Your task to perform on an android device: turn on data saver in the chrome app Image 0: 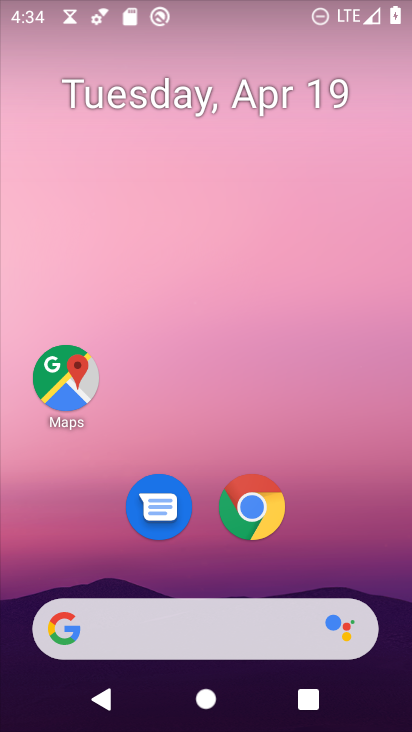
Step 0: click (262, 509)
Your task to perform on an android device: turn on data saver in the chrome app Image 1: 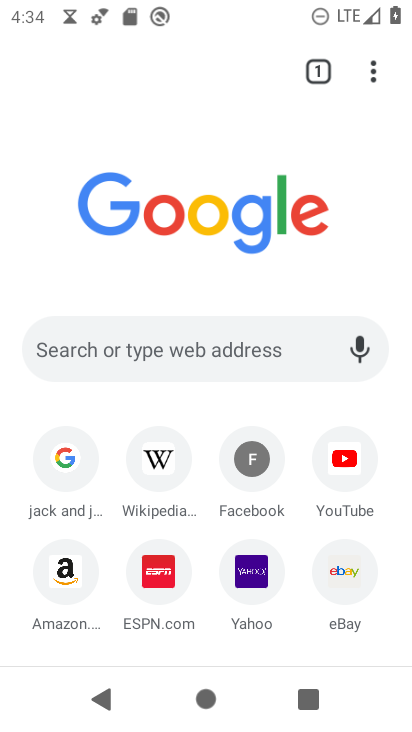
Step 1: click (371, 81)
Your task to perform on an android device: turn on data saver in the chrome app Image 2: 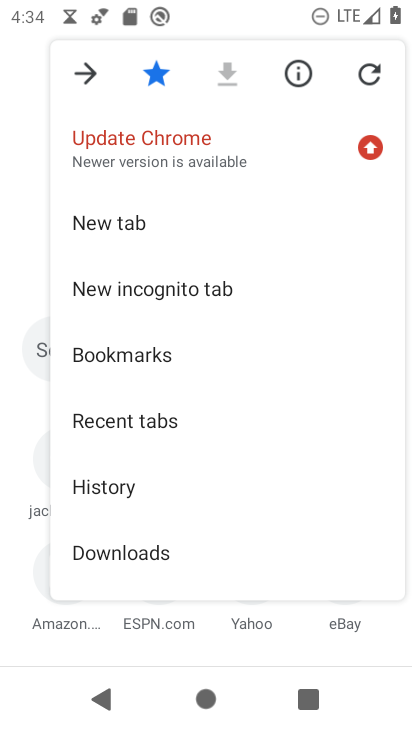
Step 2: drag from (275, 477) to (257, 278)
Your task to perform on an android device: turn on data saver in the chrome app Image 3: 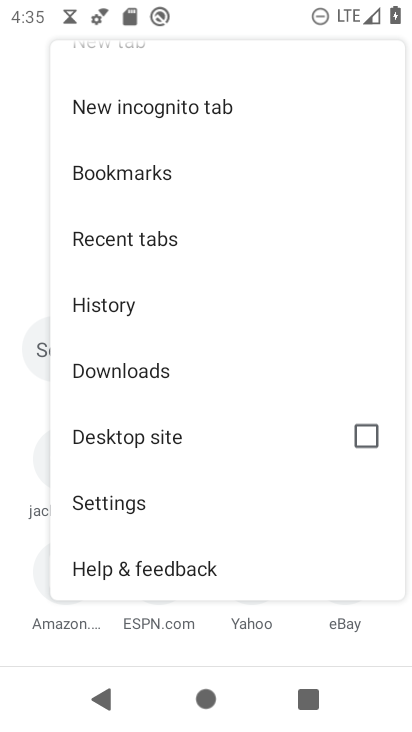
Step 3: click (242, 496)
Your task to perform on an android device: turn on data saver in the chrome app Image 4: 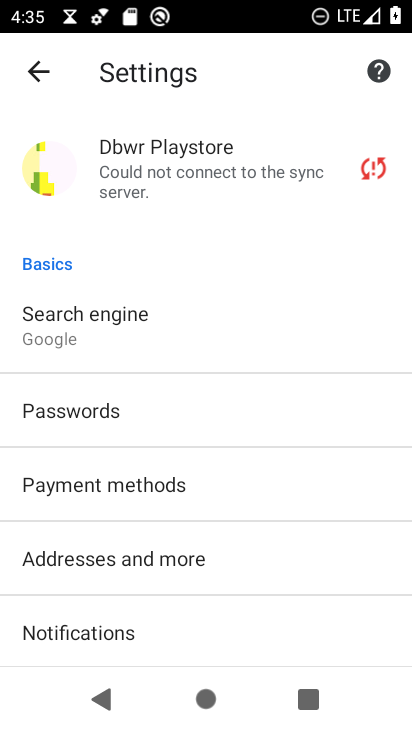
Step 4: drag from (173, 555) to (162, 399)
Your task to perform on an android device: turn on data saver in the chrome app Image 5: 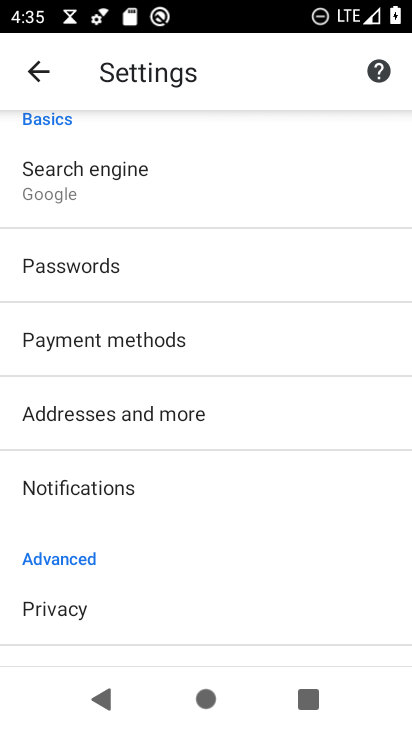
Step 5: drag from (74, 620) to (120, 441)
Your task to perform on an android device: turn on data saver in the chrome app Image 6: 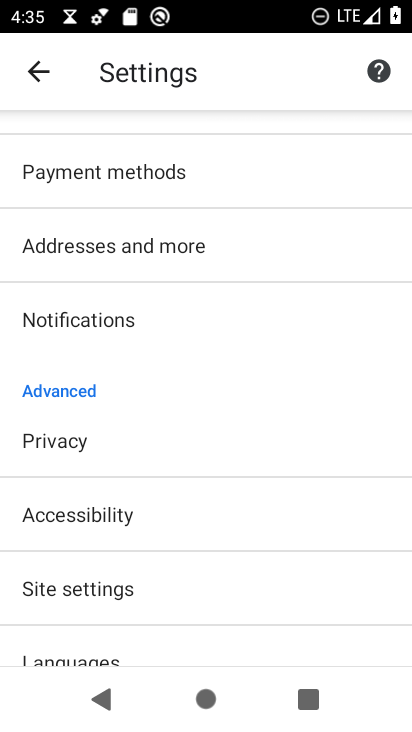
Step 6: drag from (50, 653) to (72, 552)
Your task to perform on an android device: turn on data saver in the chrome app Image 7: 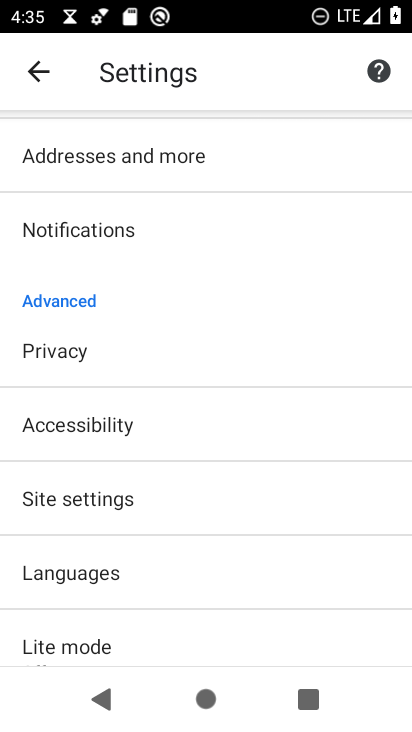
Step 7: click (131, 646)
Your task to perform on an android device: turn on data saver in the chrome app Image 8: 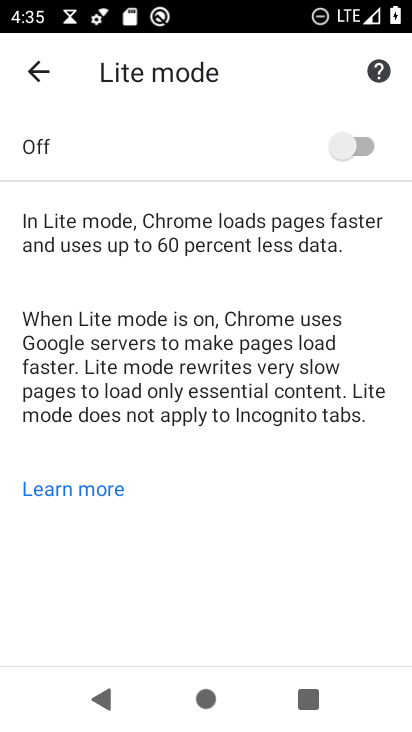
Step 8: click (353, 142)
Your task to perform on an android device: turn on data saver in the chrome app Image 9: 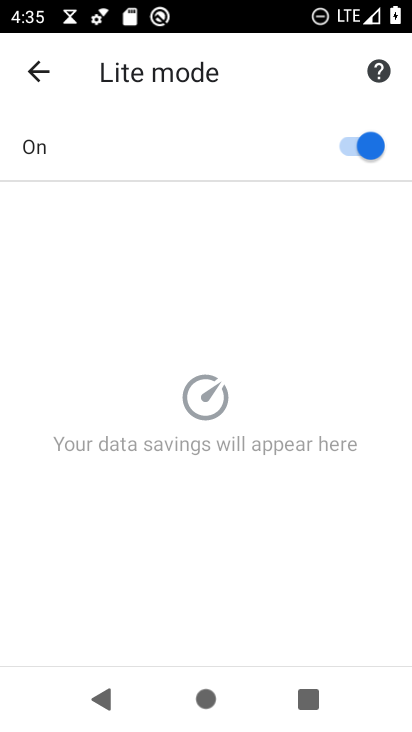
Step 9: task complete